Your task to perform on an android device: Open network settings Image 0: 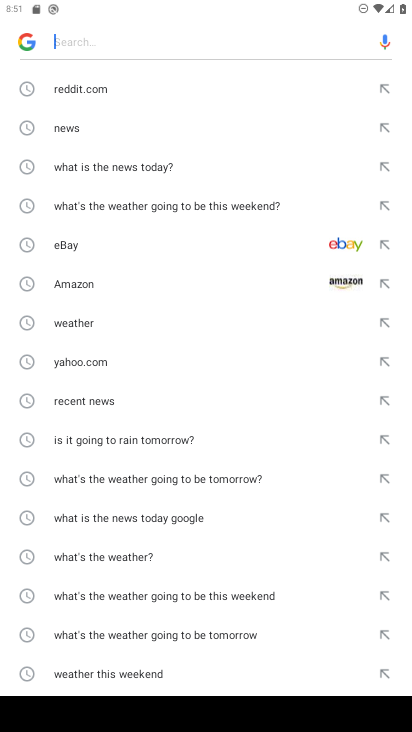
Step 0: press back button
Your task to perform on an android device: Open network settings Image 1: 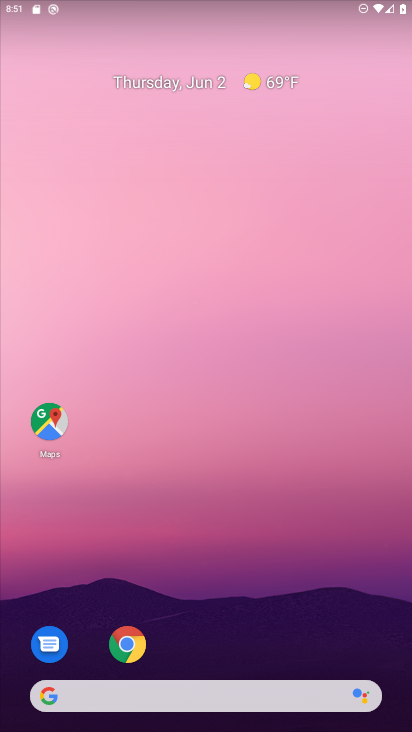
Step 1: drag from (186, 620) to (157, 30)
Your task to perform on an android device: Open network settings Image 2: 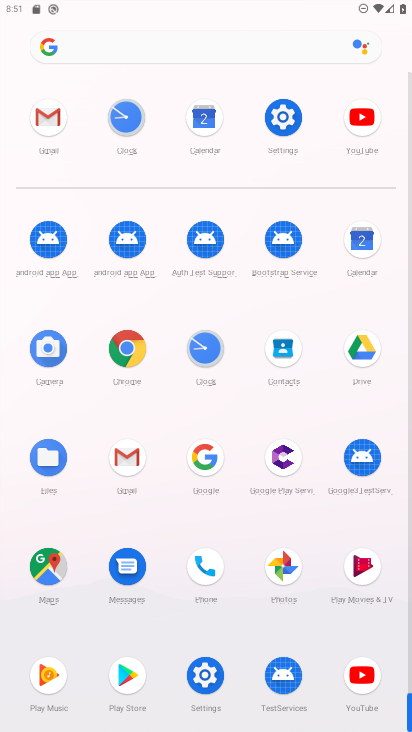
Step 2: click (283, 111)
Your task to perform on an android device: Open network settings Image 3: 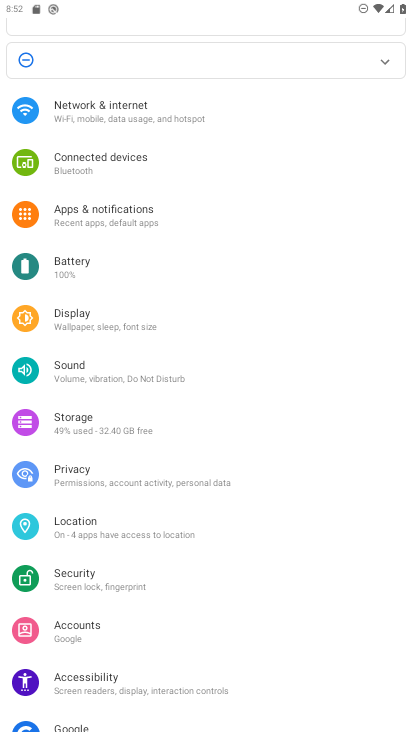
Step 3: click (114, 107)
Your task to perform on an android device: Open network settings Image 4: 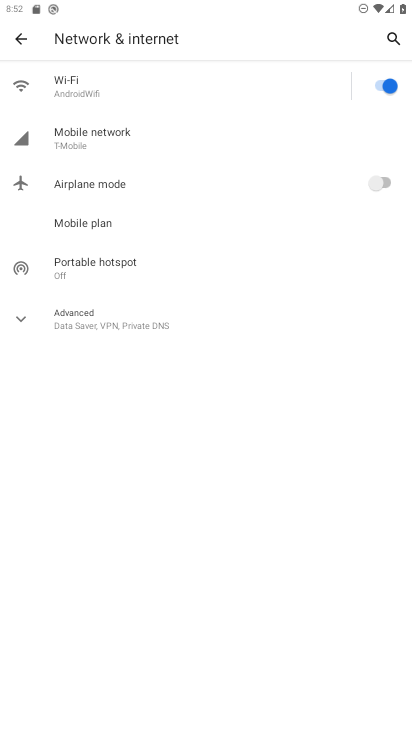
Step 4: click (24, 318)
Your task to perform on an android device: Open network settings Image 5: 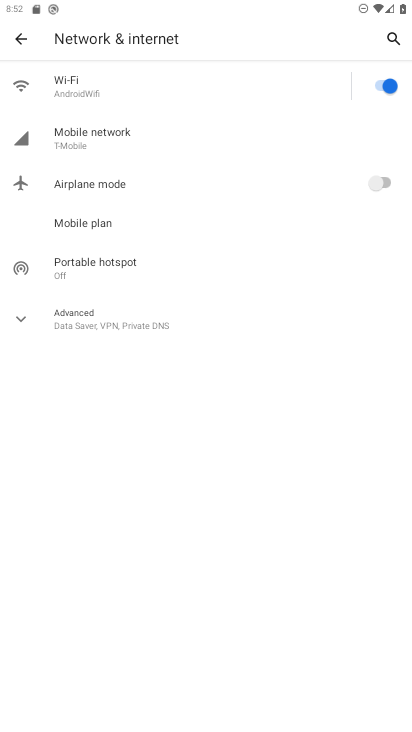
Step 5: click (20, 318)
Your task to perform on an android device: Open network settings Image 6: 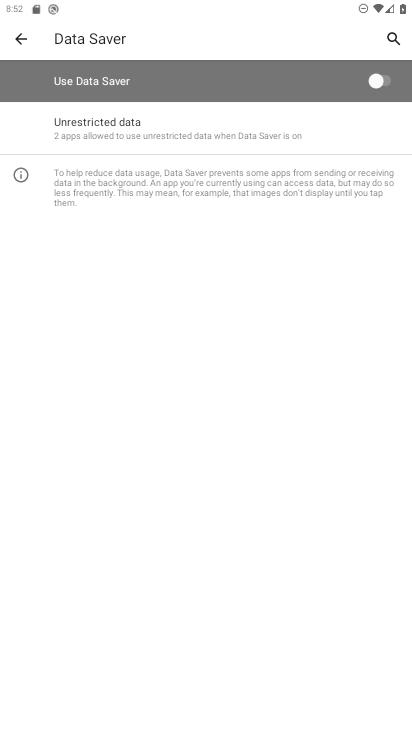
Step 6: click (12, 31)
Your task to perform on an android device: Open network settings Image 7: 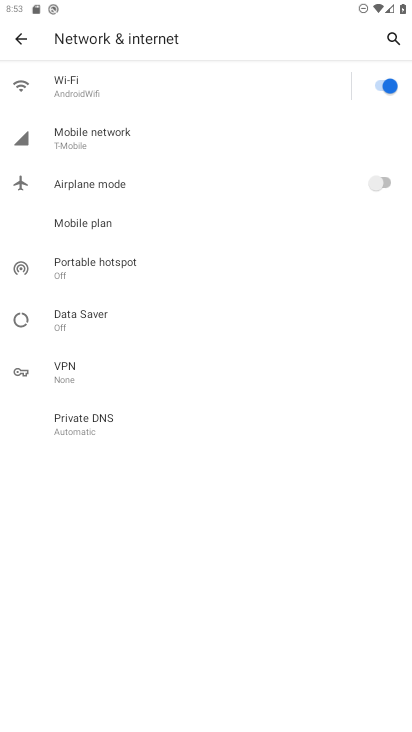
Step 7: task complete